Your task to perform on an android device: Open Google Image 0: 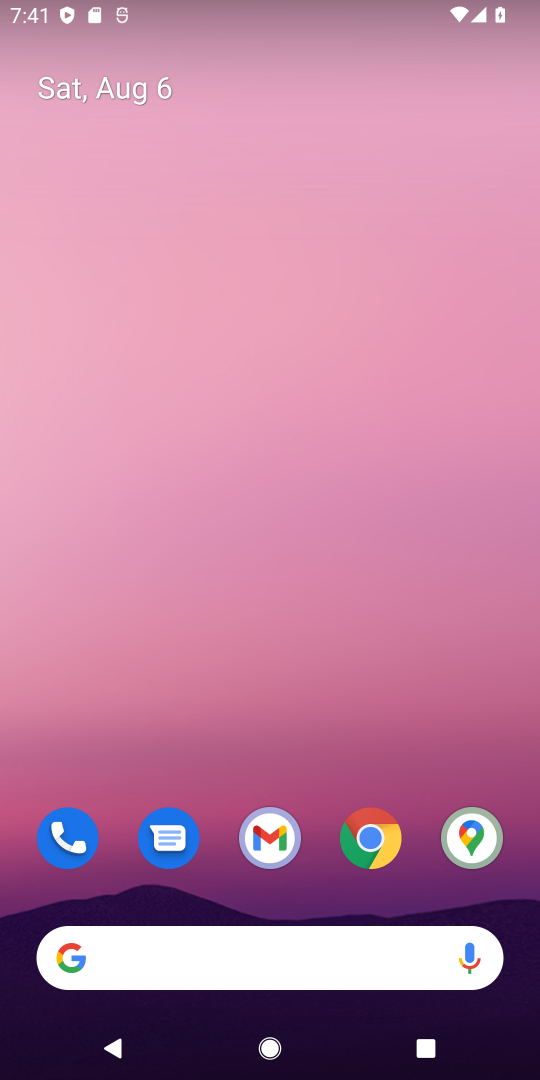
Step 0: click (255, 971)
Your task to perform on an android device: Open Google Image 1: 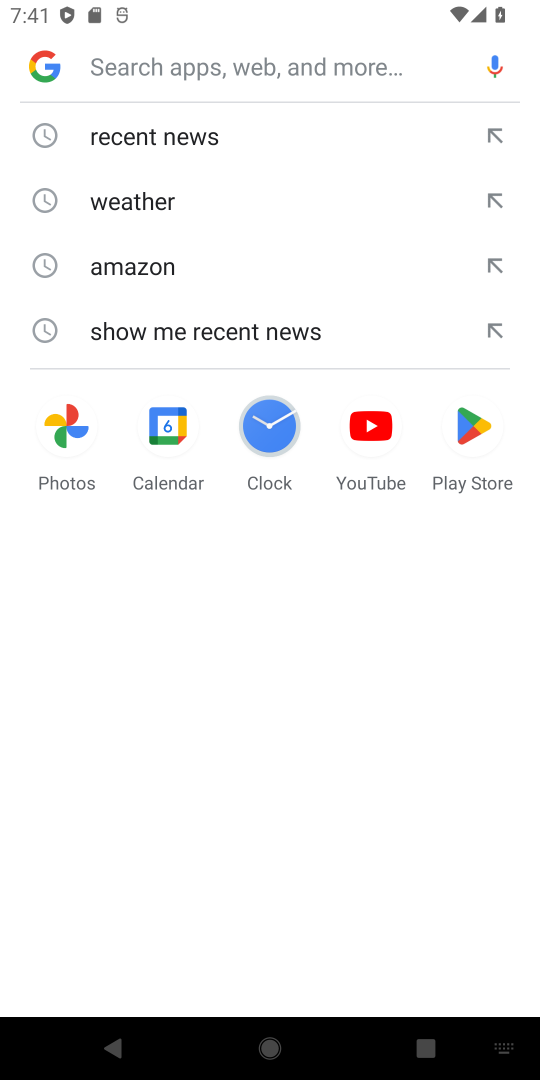
Step 1: task complete